Your task to perform on an android device: turn on location history Image 0: 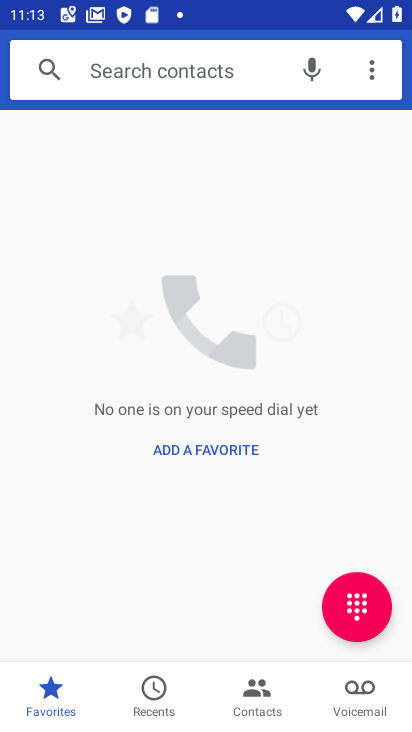
Step 0: press home button
Your task to perform on an android device: turn on location history Image 1: 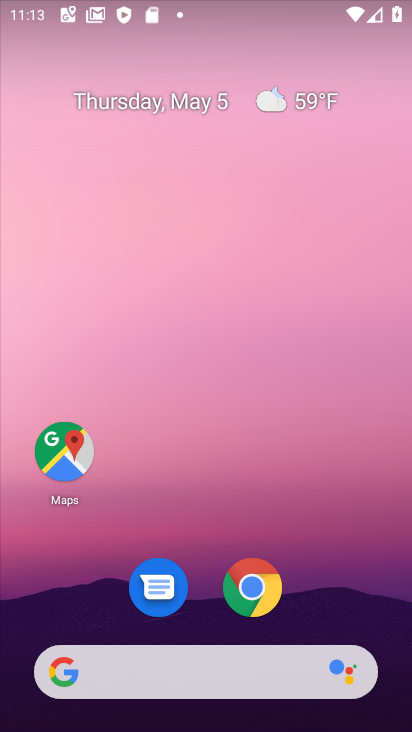
Step 1: drag from (90, 646) to (216, 76)
Your task to perform on an android device: turn on location history Image 2: 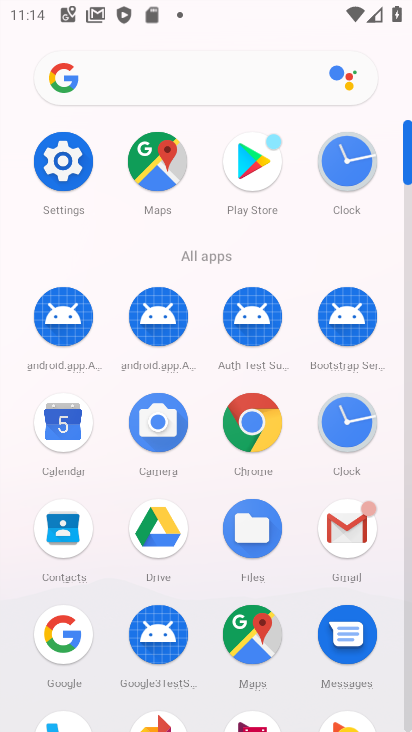
Step 2: drag from (174, 561) to (232, 370)
Your task to perform on an android device: turn on location history Image 3: 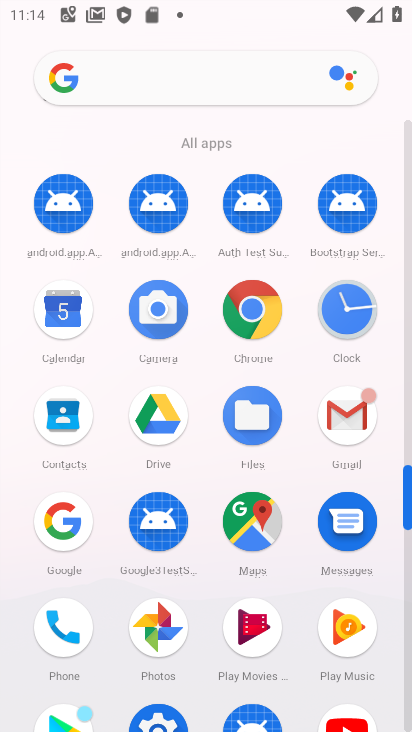
Step 3: drag from (159, 682) to (239, 468)
Your task to perform on an android device: turn on location history Image 4: 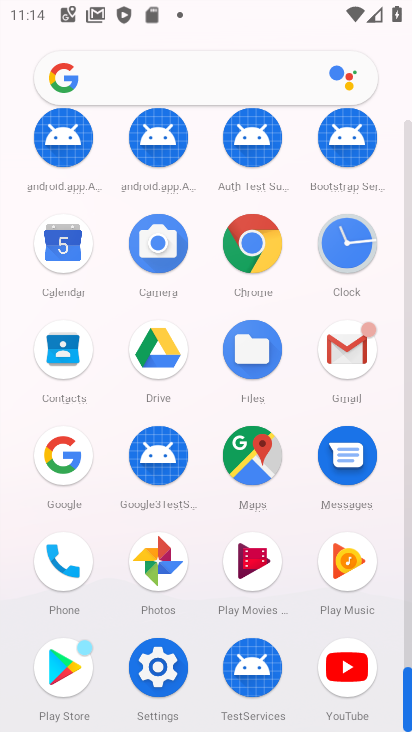
Step 4: click (163, 672)
Your task to perform on an android device: turn on location history Image 5: 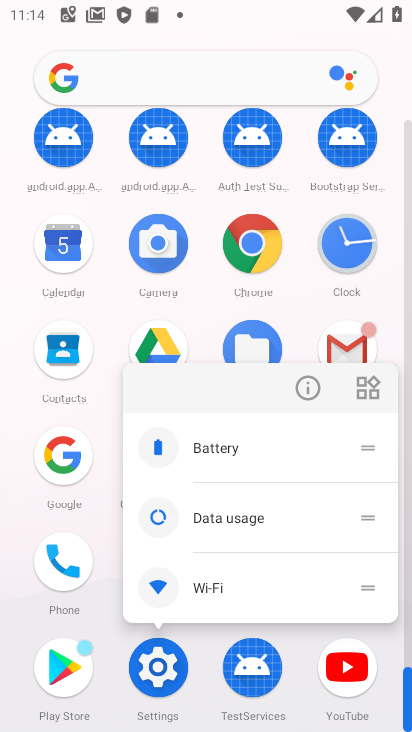
Step 5: click (141, 671)
Your task to perform on an android device: turn on location history Image 6: 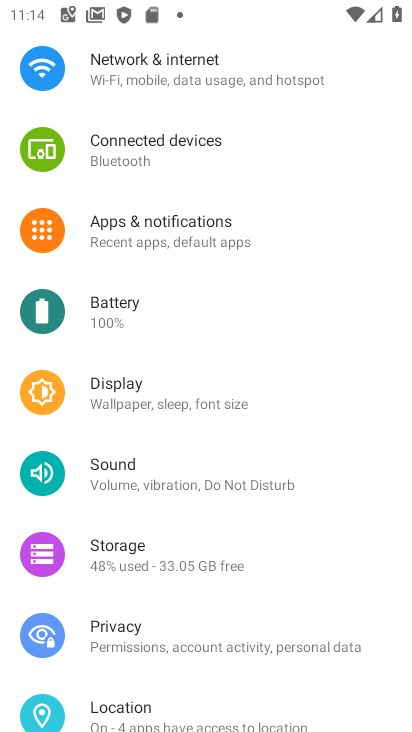
Step 6: drag from (135, 657) to (229, 366)
Your task to perform on an android device: turn on location history Image 7: 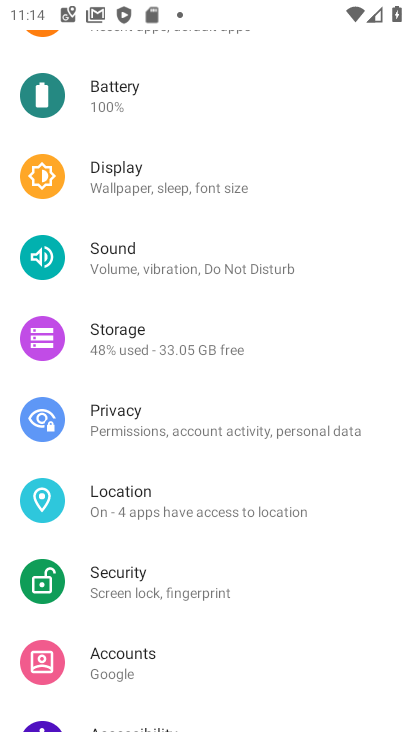
Step 7: click (124, 487)
Your task to perform on an android device: turn on location history Image 8: 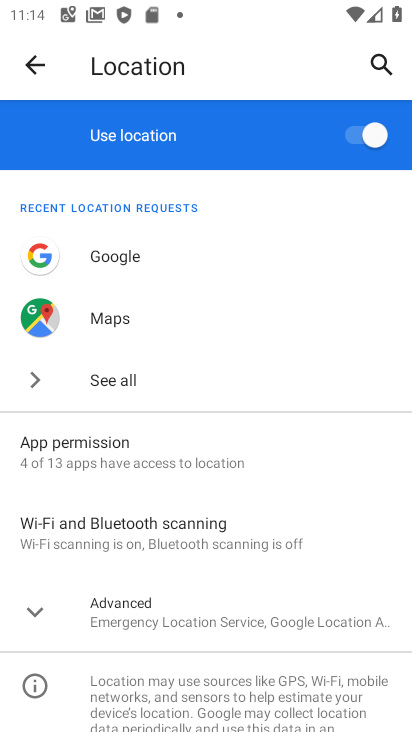
Step 8: click (160, 627)
Your task to perform on an android device: turn on location history Image 9: 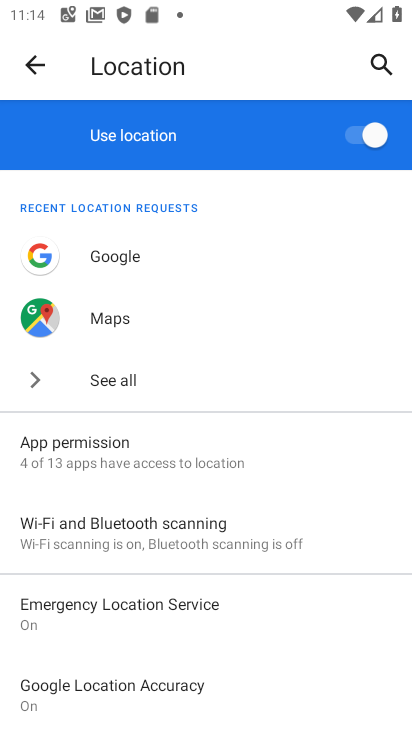
Step 9: drag from (130, 723) to (229, 389)
Your task to perform on an android device: turn on location history Image 10: 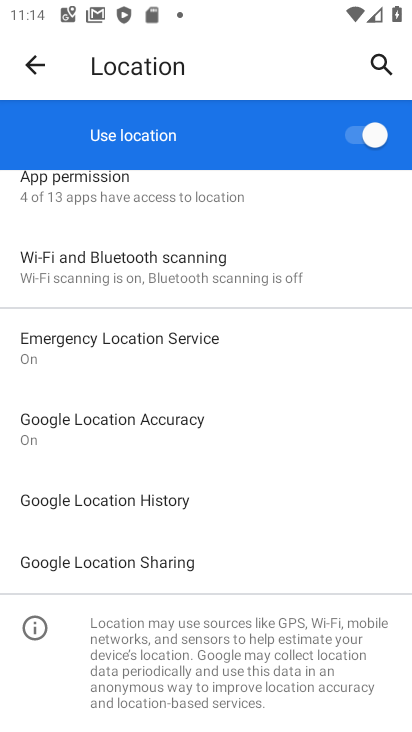
Step 10: click (166, 502)
Your task to perform on an android device: turn on location history Image 11: 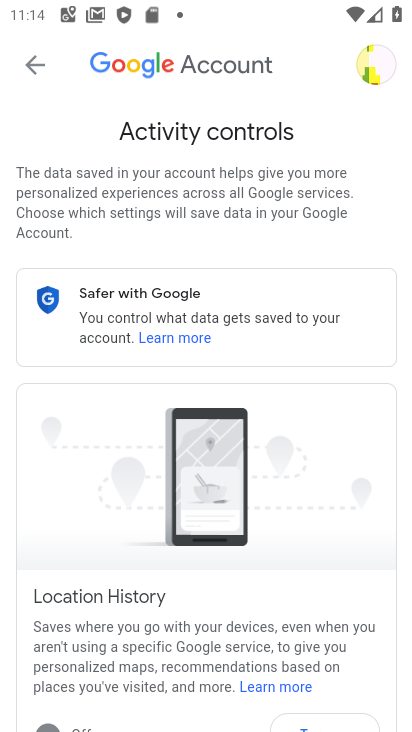
Step 11: drag from (113, 684) to (299, 196)
Your task to perform on an android device: turn on location history Image 12: 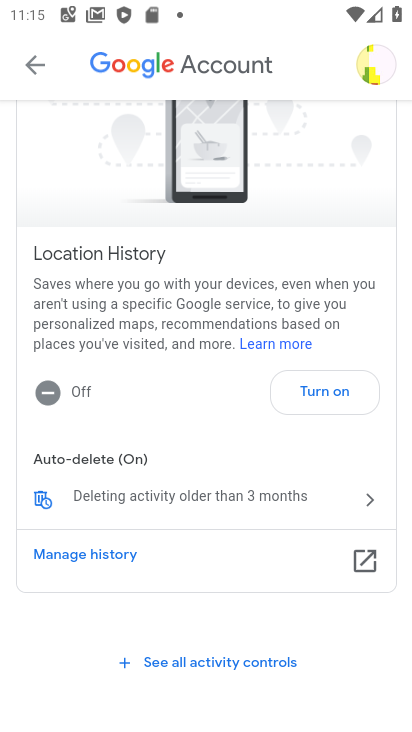
Step 12: click (333, 386)
Your task to perform on an android device: turn on location history Image 13: 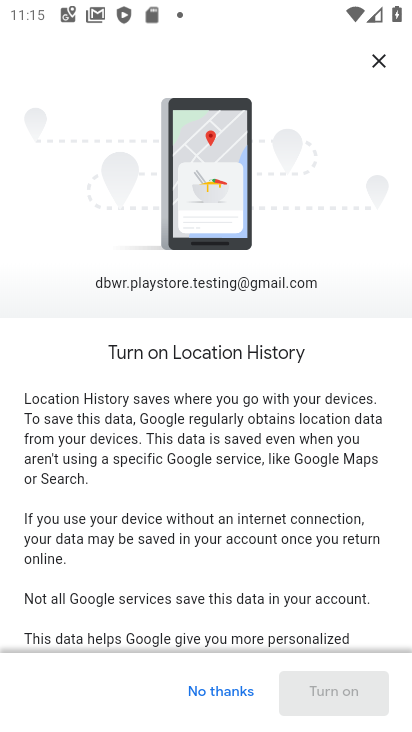
Step 13: drag from (262, 577) to (394, 101)
Your task to perform on an android device: turn on location history Image 14: 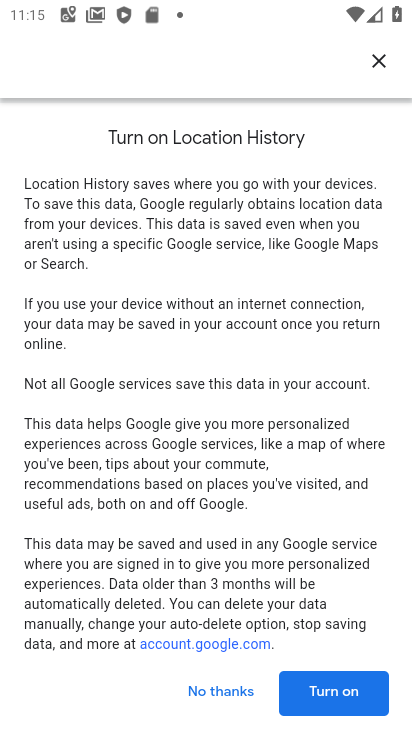
Step 14: click (351, 700)
Your task to perform on an android device: turn on location history Image 15: 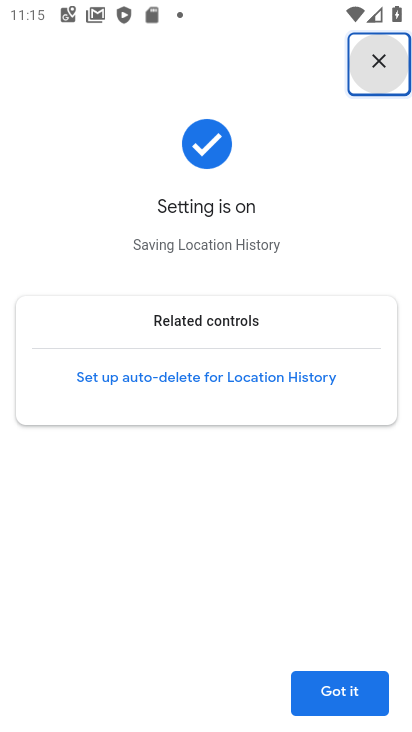
Step 15: click (350, 700)
Your task to perform on an android device: turn on location history Image 16: 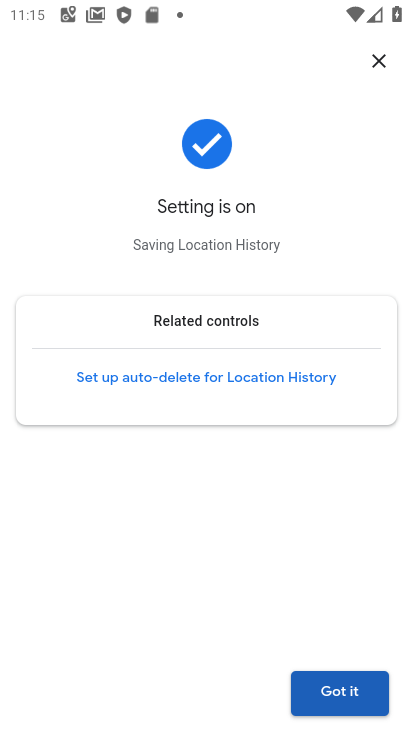
Step 16: click (353, 704)
Your task to perform on an android device: turn on location history Image 17: 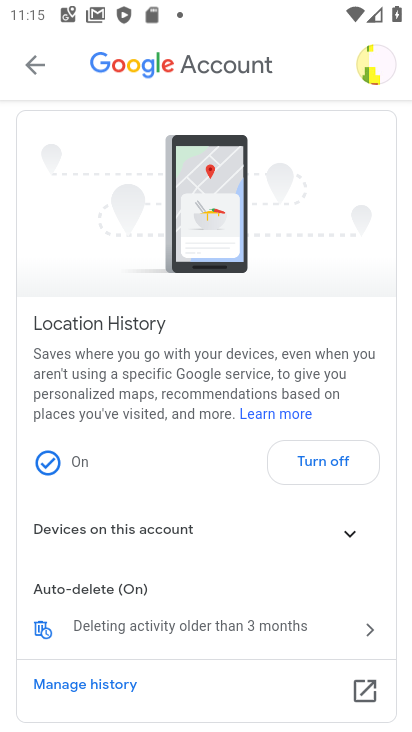
Step 17: task complete